Your task to perform on an android device: Open Google Chrome and click the shortcut for Amazon.com Image 0: 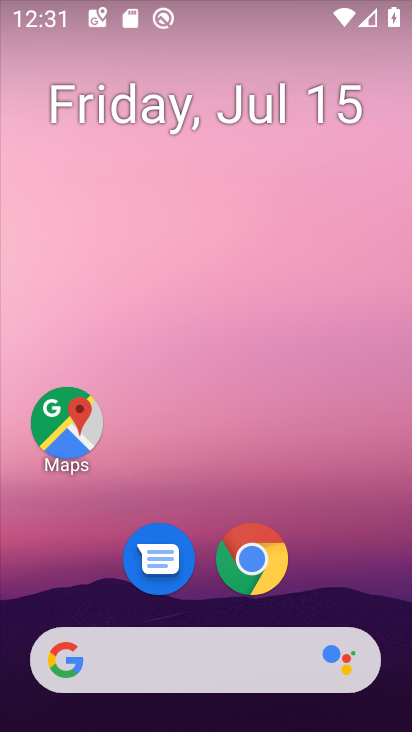
Step 0: drag from (357, 603) to (352, 55)
Your task to perform on an android device: Open Google Chrome and click the shortcut for Amazon.com Image 1: 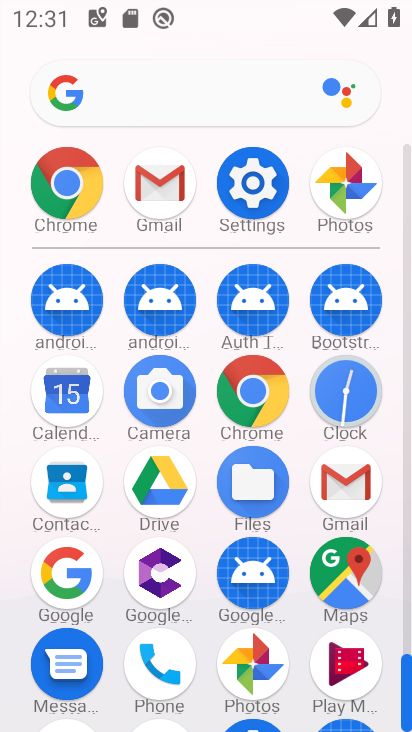
Step 1: click (246, 395)
Your task to perform on an android device: Open Google Chrome and click the shortcut for Amazon.com Image 2: 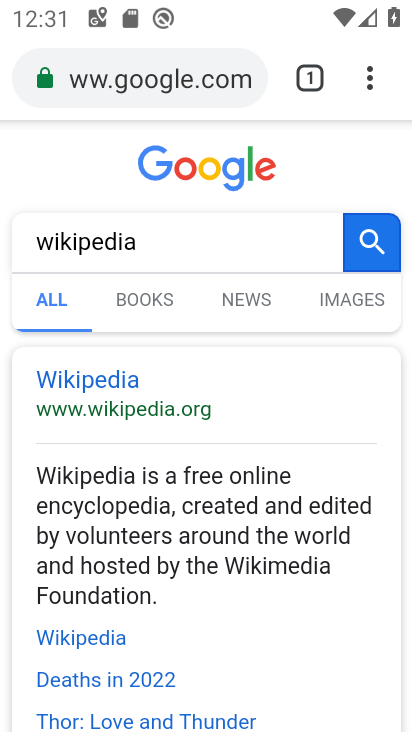
Step 2: task complete